Your task to perform on an android device: Go to notification settings Image 0: 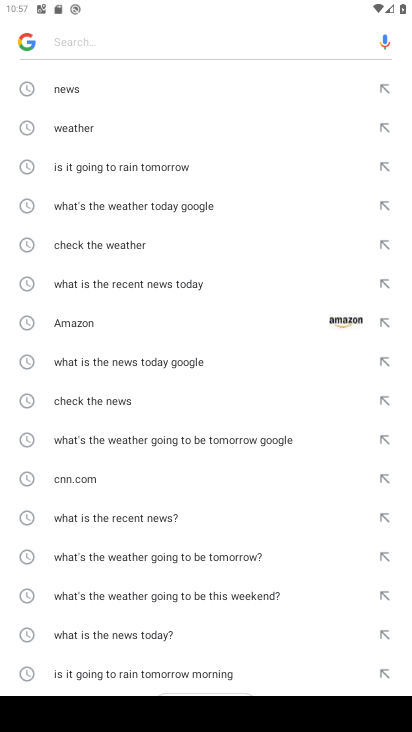
Step 0: press home button
Your task to perform on an android device: Go to notification settings Image 1: 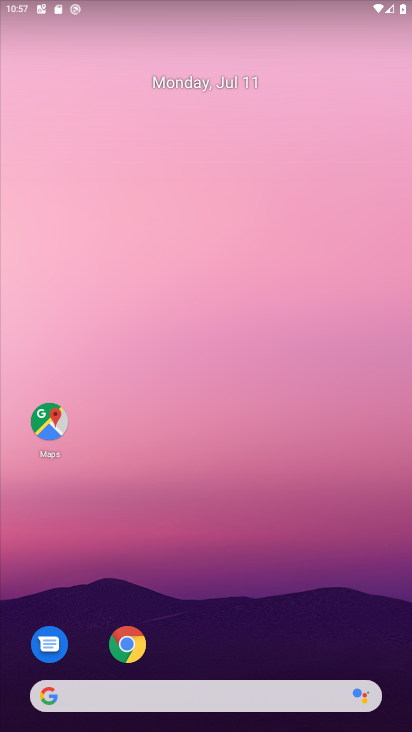
Step 1: drag from (277, 642) to (213, 251)
Your task to perform on an android device: Go to notification settings Image 2: 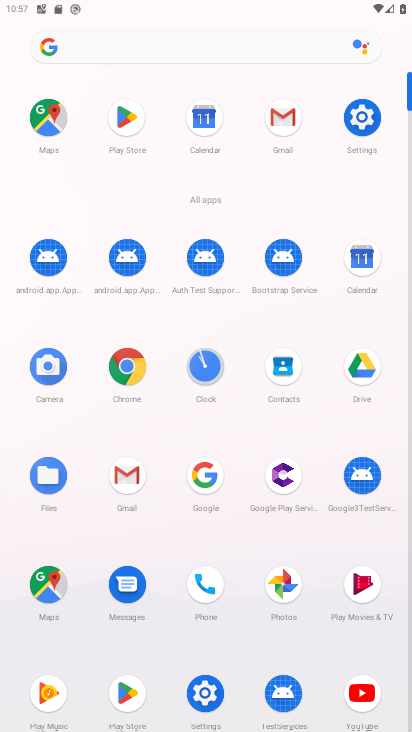
Step 2: click (358, 120)
Your task to perform on an android device: Go to notification settings Image 3: 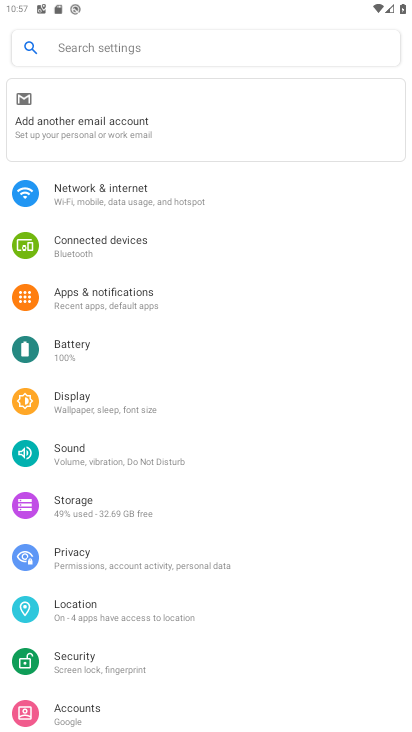
Step 3: click (158, 294)
Your task to perform on an android device: Go to notification settings Image 4: 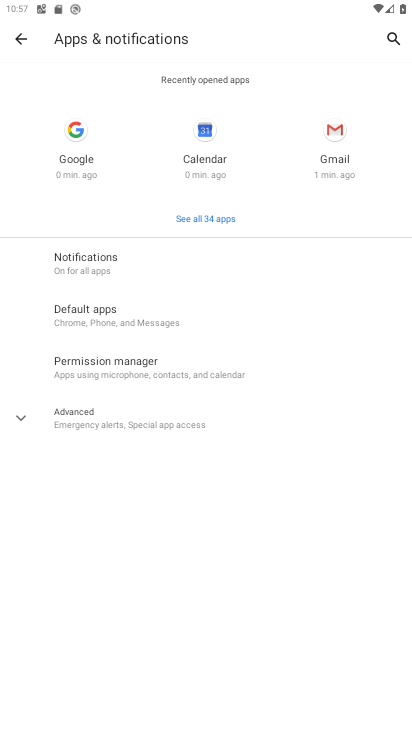
Step 4: click (138, 265)
Your task to perform on an android device: Go to notification settings Image 5: 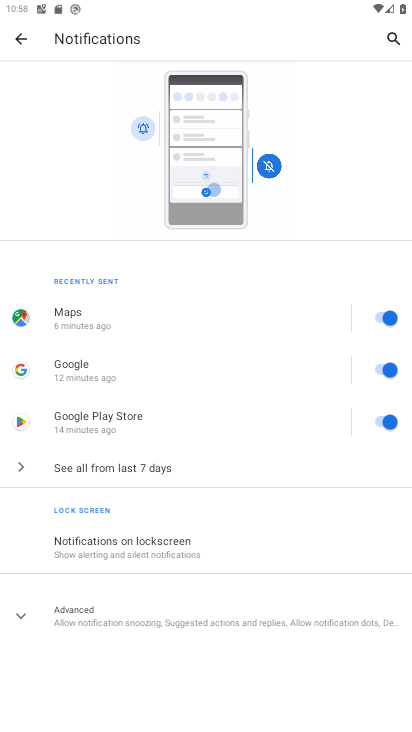
Step 5: task complete